Your task to perform on an android device: find which apps use the phone's location Image 0: 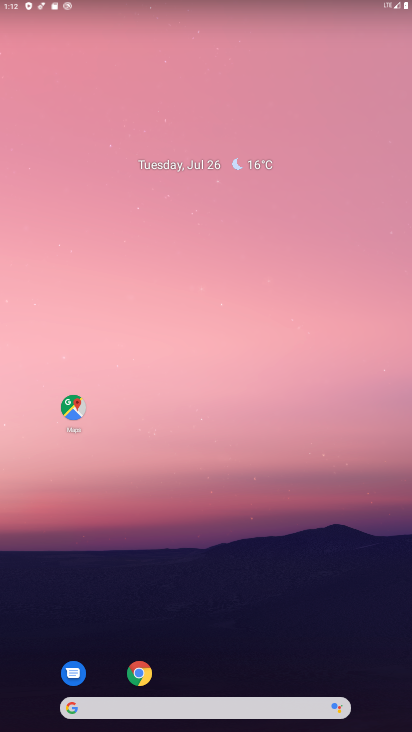
Step 0: drag from (212, 664) to (202, 116)
Your task to perform on an android device: find which apps use the phone's location Image 1: 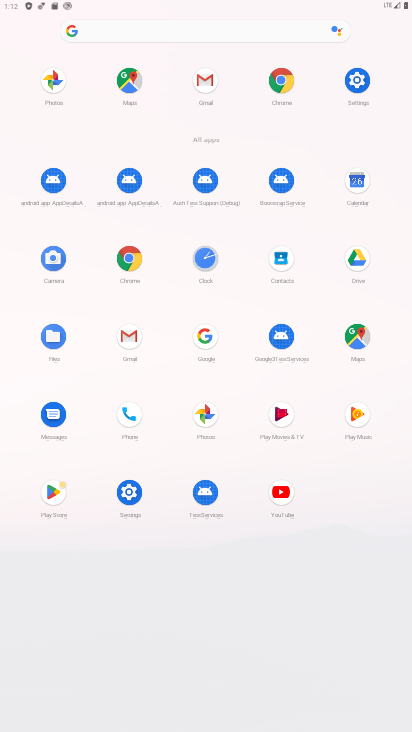
Step 1: click (351, 79)
Your task to perform on an android device: find which apps use the phone's location Image 2: 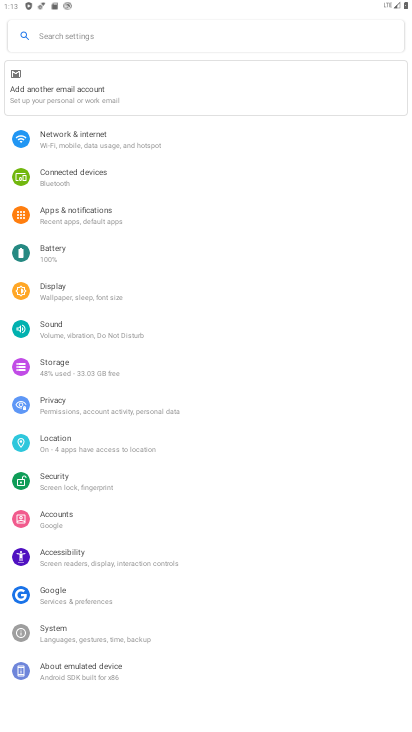
Step 2: click (51, 438)
Your task to perform on an android device: find which apps use the phone's location Image 3: 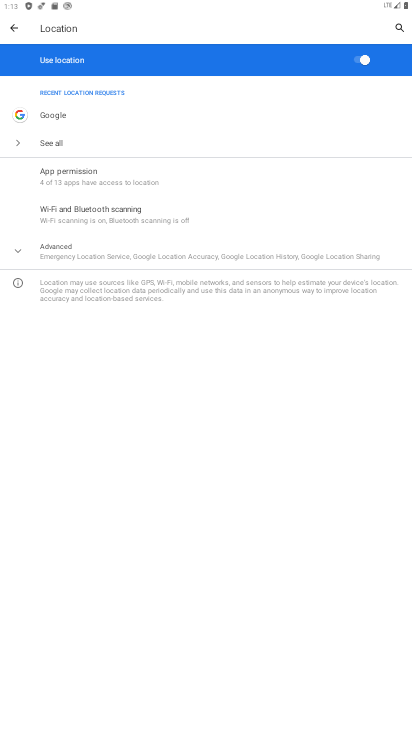
Step 3: click (57, 175)
Your task to perform on an android device: find which apps use the phone's location Image 4: 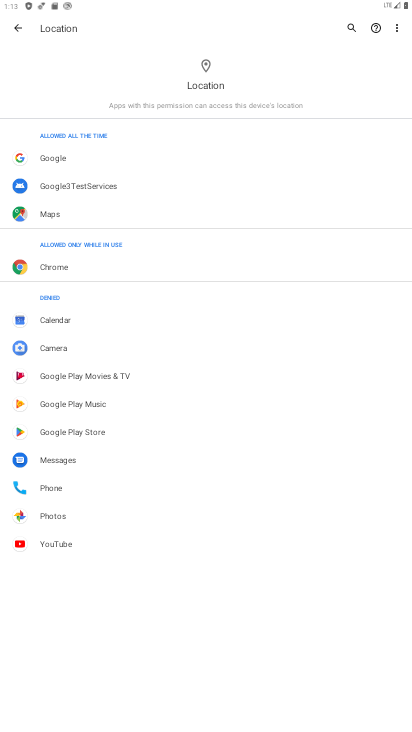
Step 4: task complete